Your task to perform on an android device: Empty the shopping cart on bestbuy. Search for alienware area 51 on bestbuy, select the first entry, and add it to the cart. Image 0: 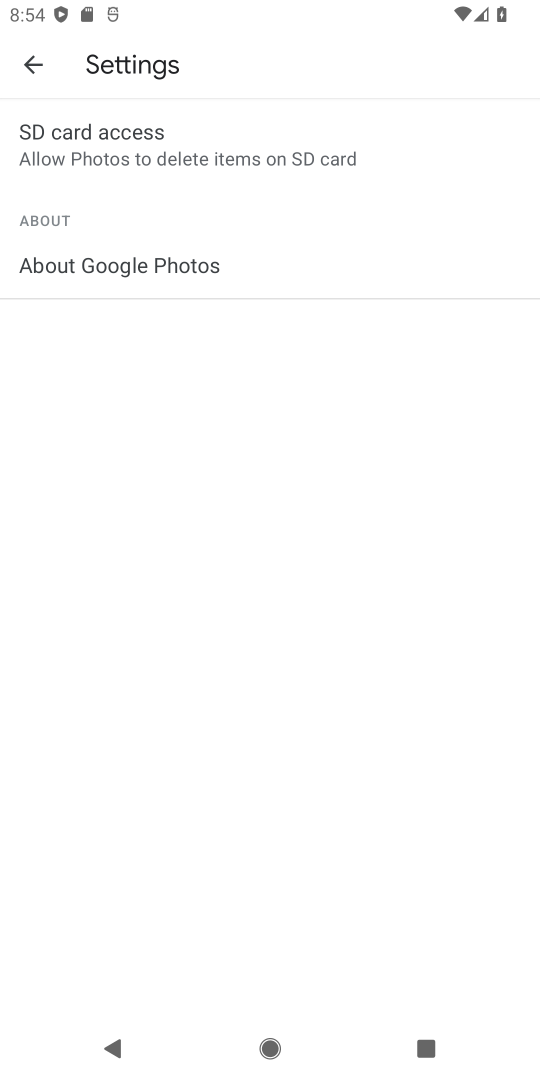
Step 0: press home button
Your task to perform on an android device: Empty the shopping cart on bestbuy. Search for alienware area 51 on bestbuy, select the first entry, and add it to the cart. Image 1: 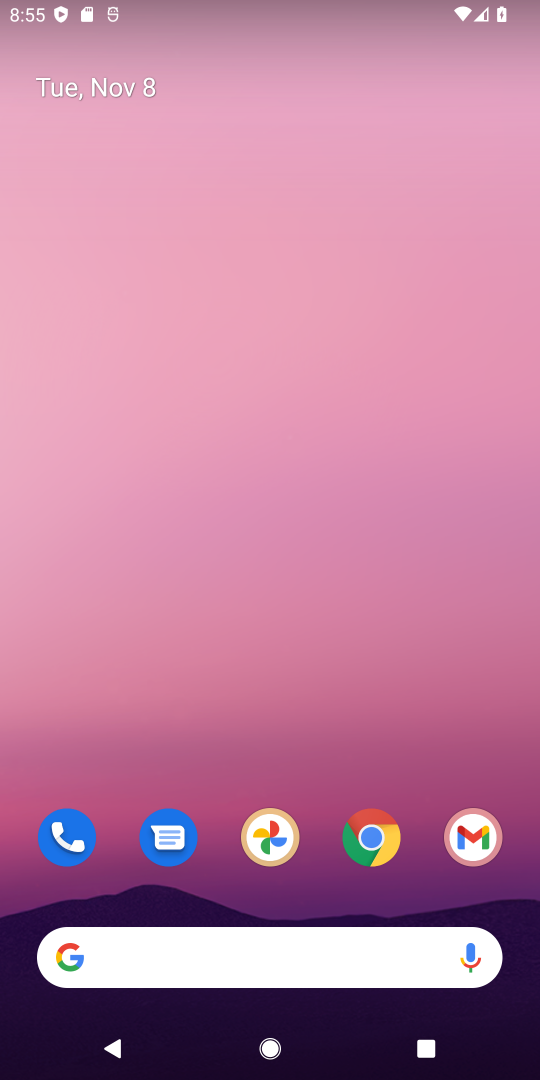
Step 1: click (383, 839)
Your task to perform on an android device: Empty the shopping cart on bestbuy. Search for alienware area 51 on bestbuy, select the first entry, and add it to the cart. Image 2: 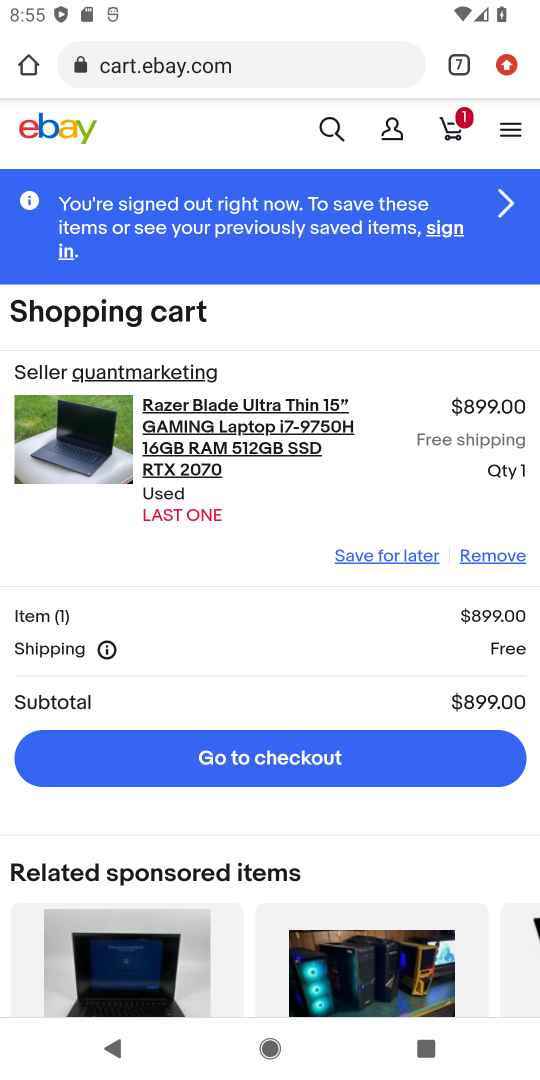
Step 2: click (460, 63)
Your task to perform on an android device: Empty the shopping cart on bestbuy. Search for alienware area 51 on bestbuy, select the first entry, and add it to the cart. Image 3: 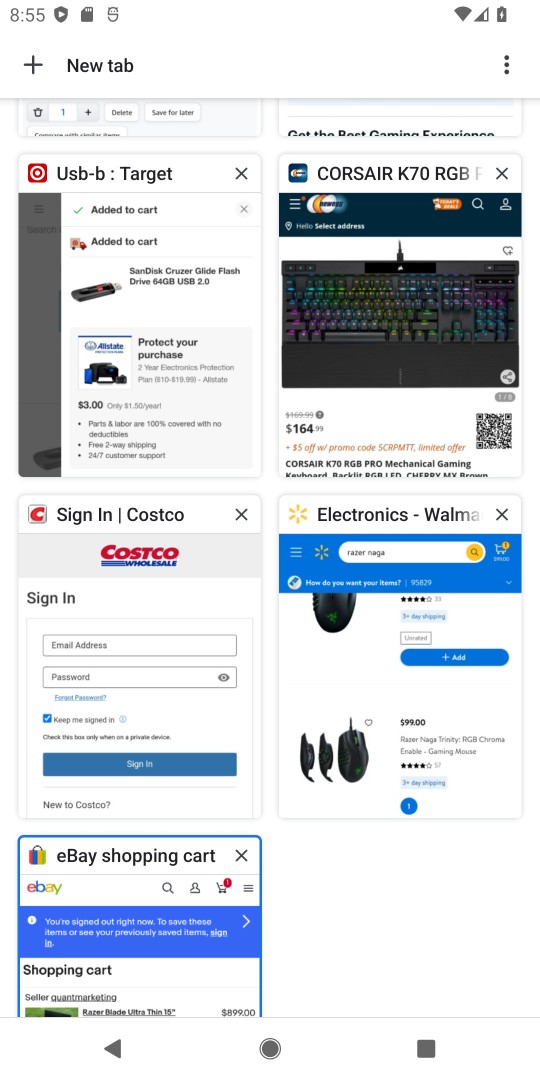
Step 3: drag from (479, 268) to (374, 1068)
Your task to perform on an android device: Empty the shopping cart on bestbuy. Search for alienware area 51 on bestbuy, select the first entry, and add it to the cart. Image 4: 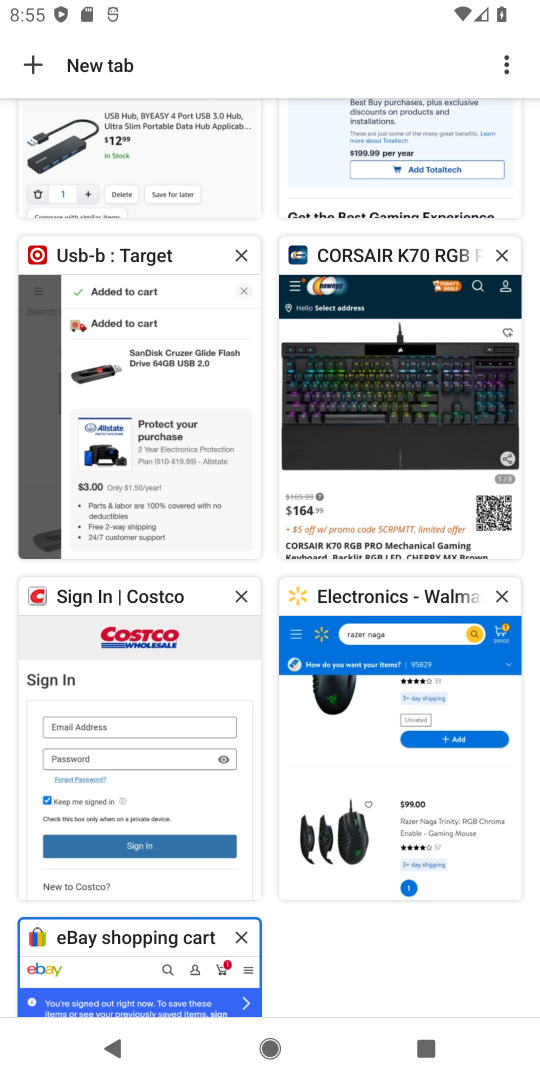
Step 4: drag from (442, 353) to (284, 1006)
Your task to perform on an android device: Empty the shopping cart on bestbuy. Search for alienware area 51 on bestbuy, select the first entry, and add it to the cart. Image 5: 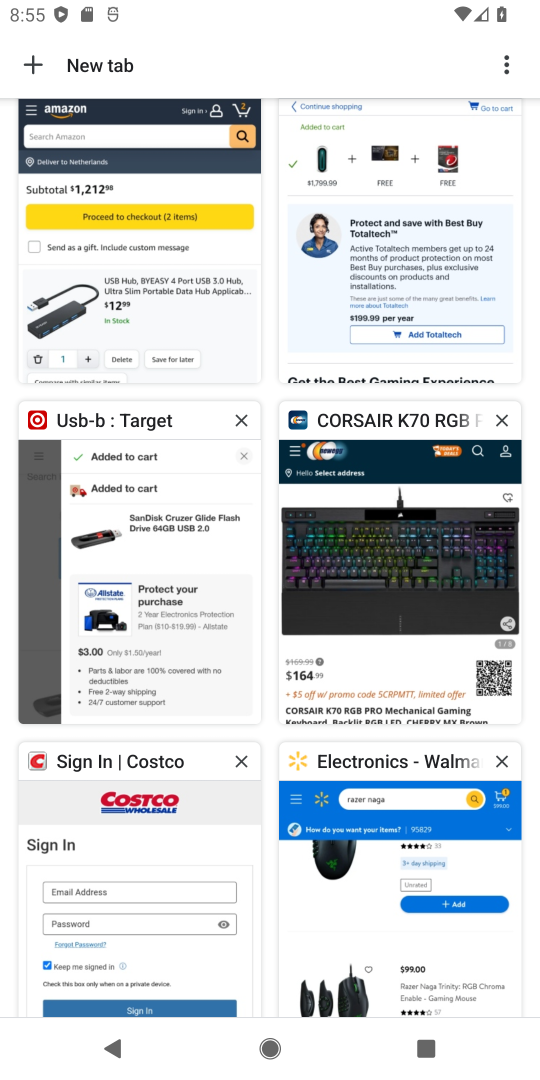
Step 5: click (414, 231)
Your task to perform on an android device: Empty the shopping cart on bestbuy. Search for alienware area 51 on bestbuy, select the first entry, and add it to the cart. Image 6: 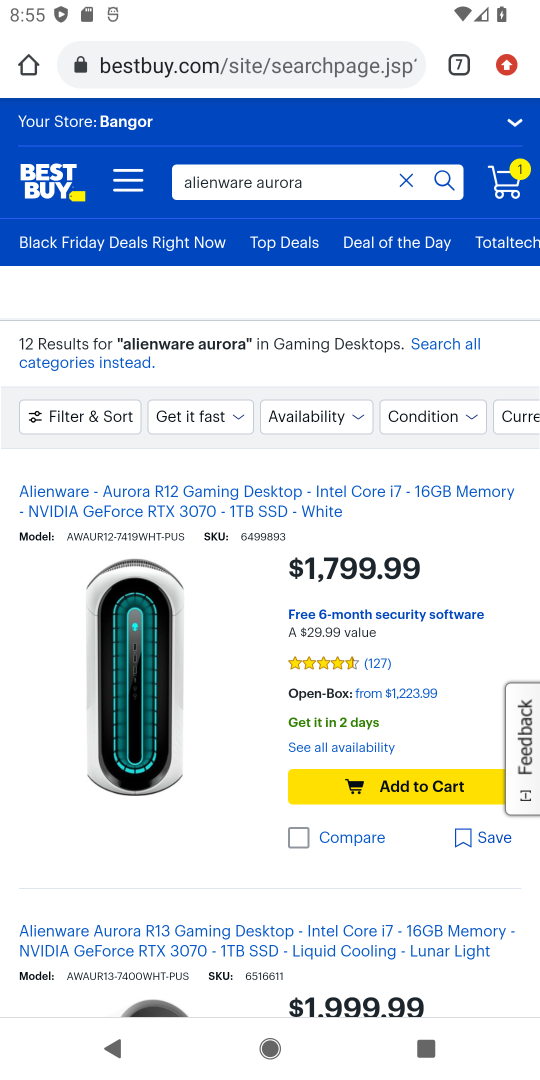
Step 6: click (401, 181)
Your task to perform on an android device: Empty the shopping cart on bestbuy. Search for alienware area 51 on bestbuy, select the first entry, and add it to the cart. Image 7: 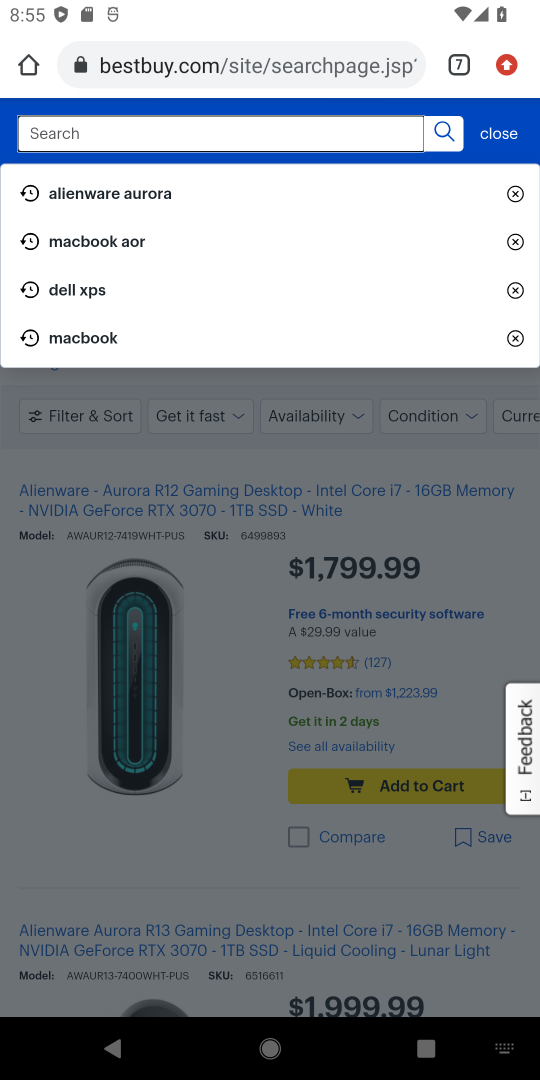
Step 7: type "alienware area 51 "
Your task to perform on an android device: Empty the shopping cart on bestbuy. Search for alienware area 51 on bestbuy, select the first entry, and add it to the cart. Image 8: 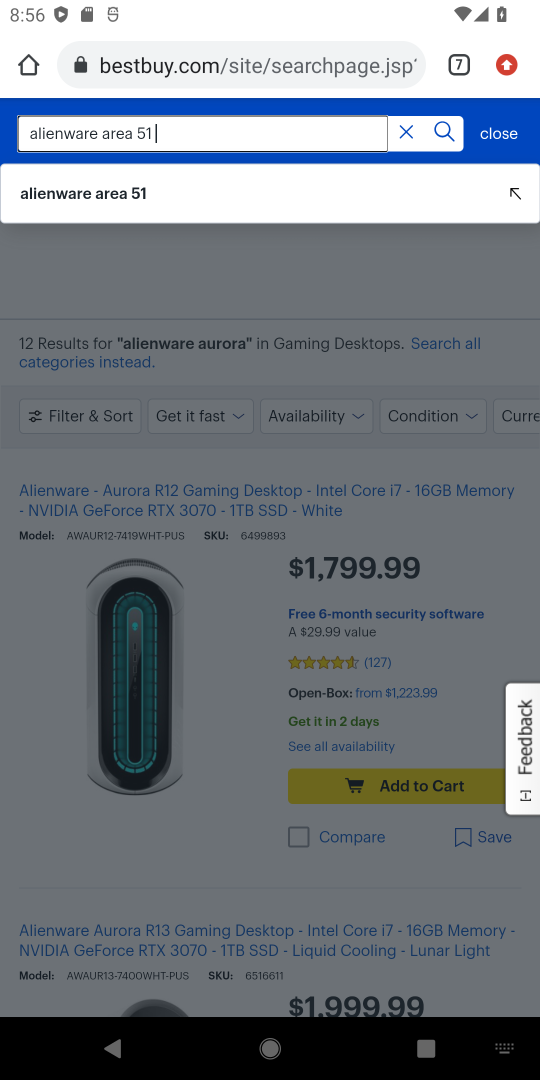
Step 8: click (104, 203)
Your task to perform on an android device: Empty the shopping cart on bestbuy. Search for alienware area 51 on bestbuy, select the first entry, and add it to the cart. Image 9: 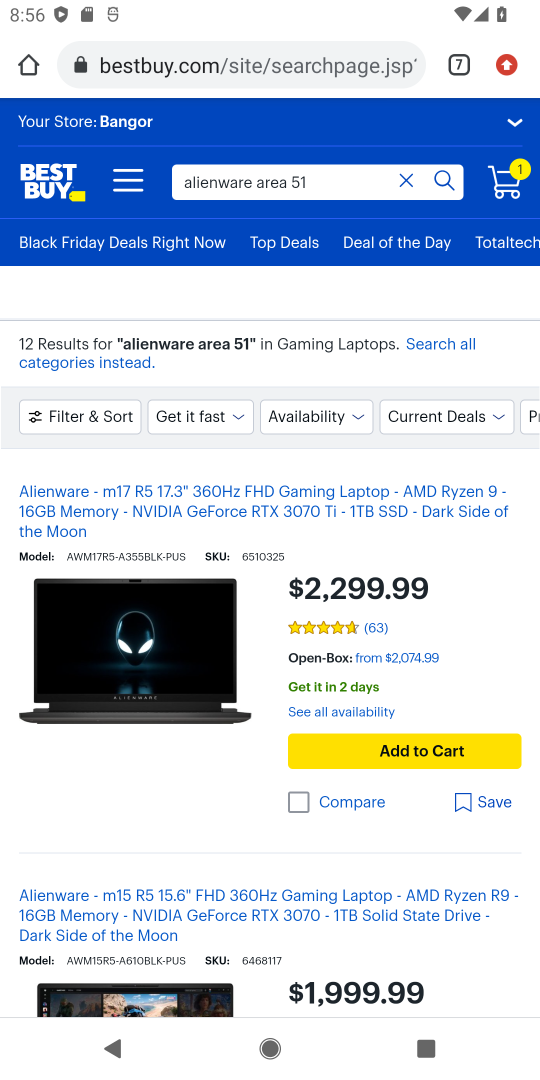
Step 9: click (411, 664)
Your task to perform on an android device: Empty the shopping cart on bestbuy. Search for alienware area 51 on bestbuy, select the first entry, and add it to the cart. Image 10: 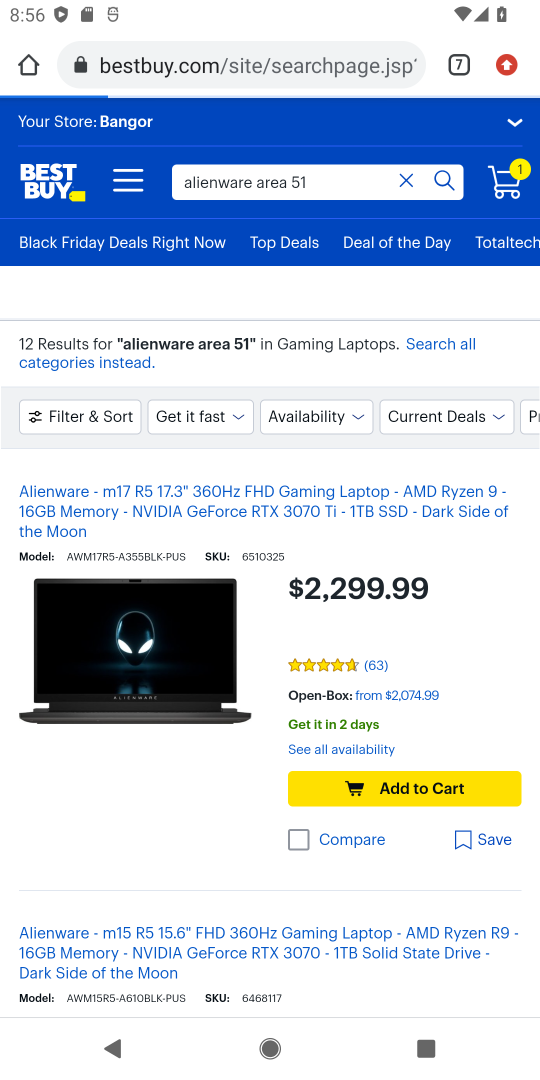
Step 10: click (430, 755)
Your task to perform on an android device: Empty the shopping cart on bestbuy. Search for alienware area 51 on bestbuy, select the first entry, and add it to the cart. Image 11: 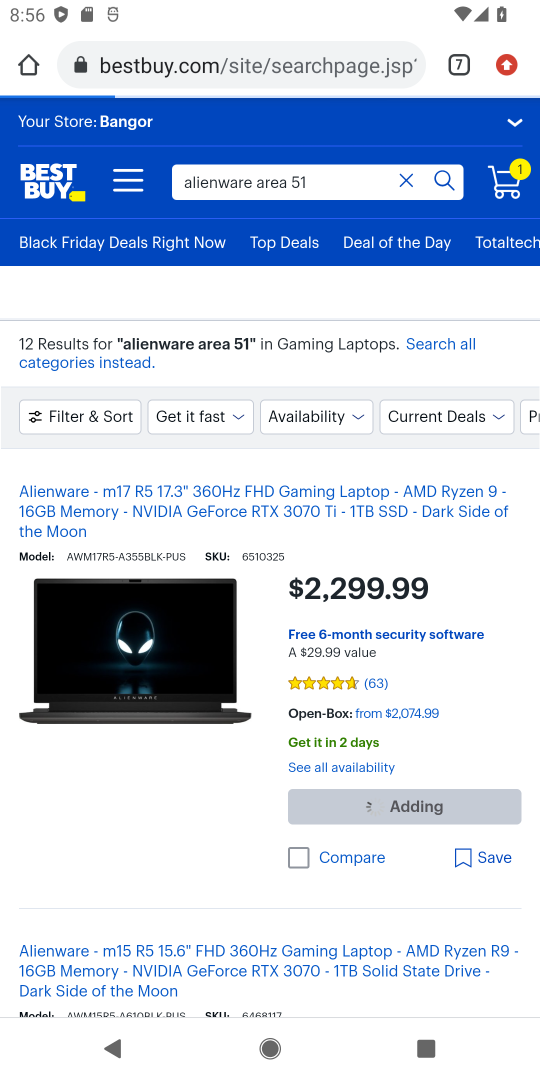
Step 11: click (426, 749)
Your task to perform on an android device: Empty the shopping cart on bestbuy. Search for alienware area 51 on bestbuy, select the first entry, and add it to the cart. Image 12: 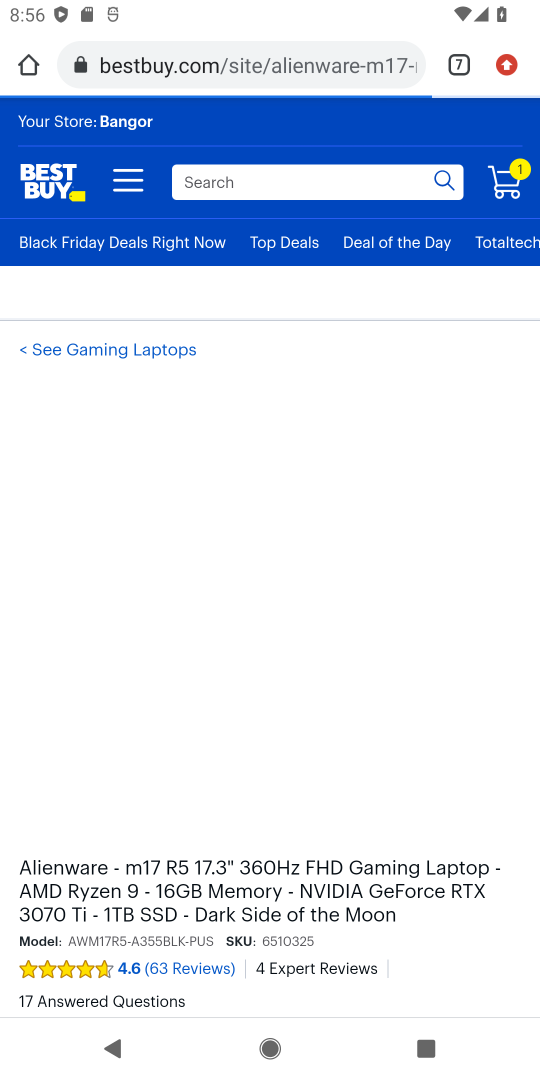
Step 12: click (510, 168)
Your task to perform on an android device: Empty the shopping cart on bestbuy. Search for alienware area 51 on bestbuy, select the first entry, and add it to the cart. Image 13: 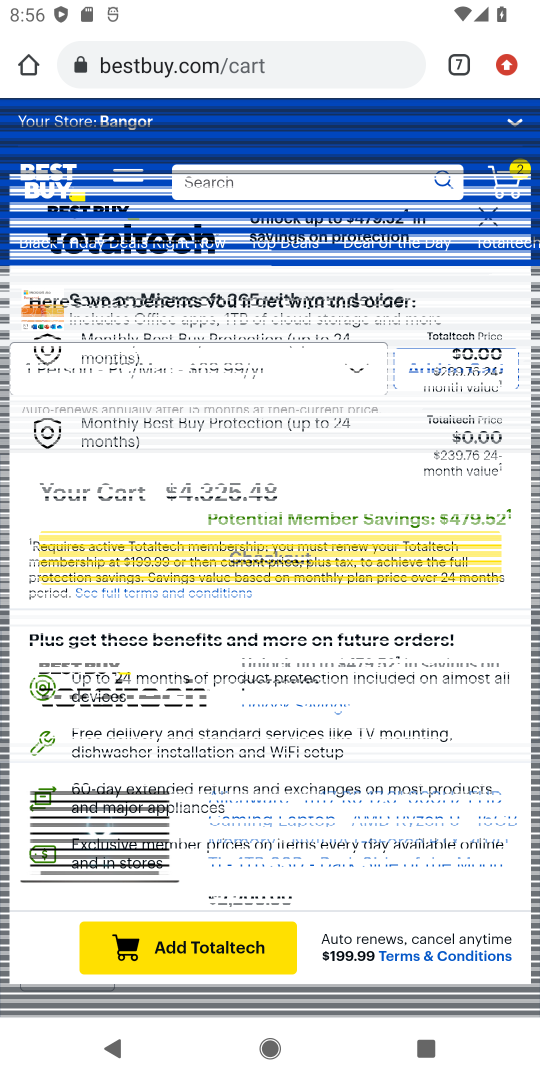
Step 13: click (491, 219)
Your task to perform on an android device: Empty the shopping cart on bestbuy. Search for alienware area 51 on bestbuy, select the first entry, and add it to the cart. Image 14: 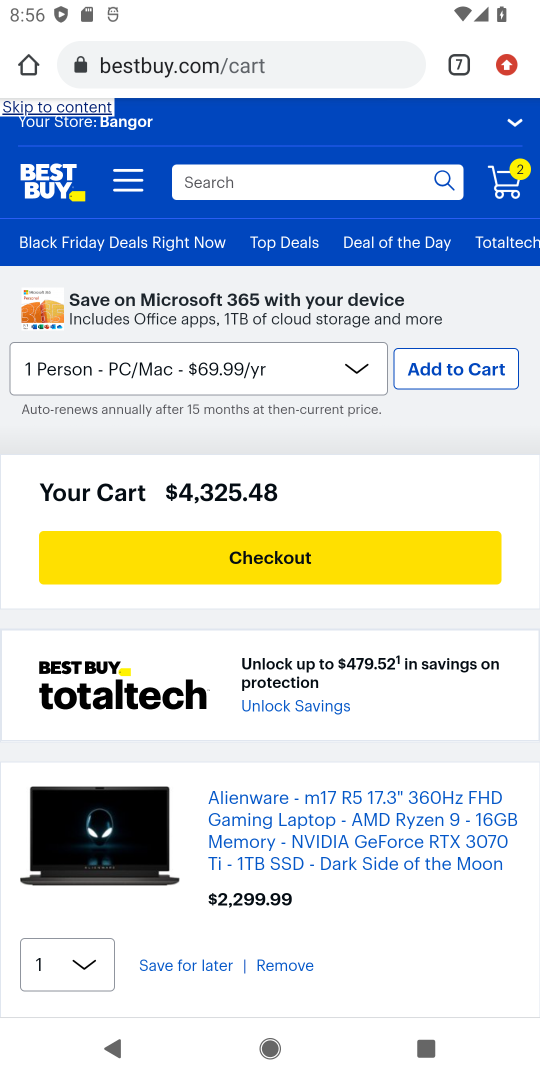
Step 14: drag from (333, 760) to (425, 323)
Your task to perform on an android device: Empty the shopping cart on bestbuy. Search for alienware area 51 on bestbuy, select the first entry, and add it to the cart. Image 15: 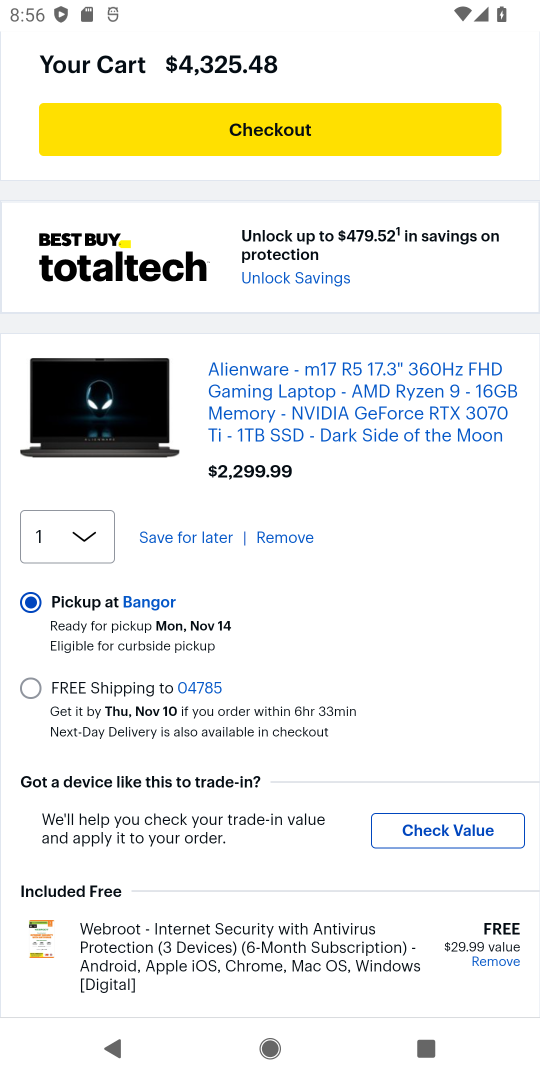
Step 15: drag from (374, 706) to (479, 172)
Your task to perform on an android device: Empty the shopping cart on bestbuy. Search for alienware area 51 on bestbuy, select the first entry, and add it to the cart. Image 16: 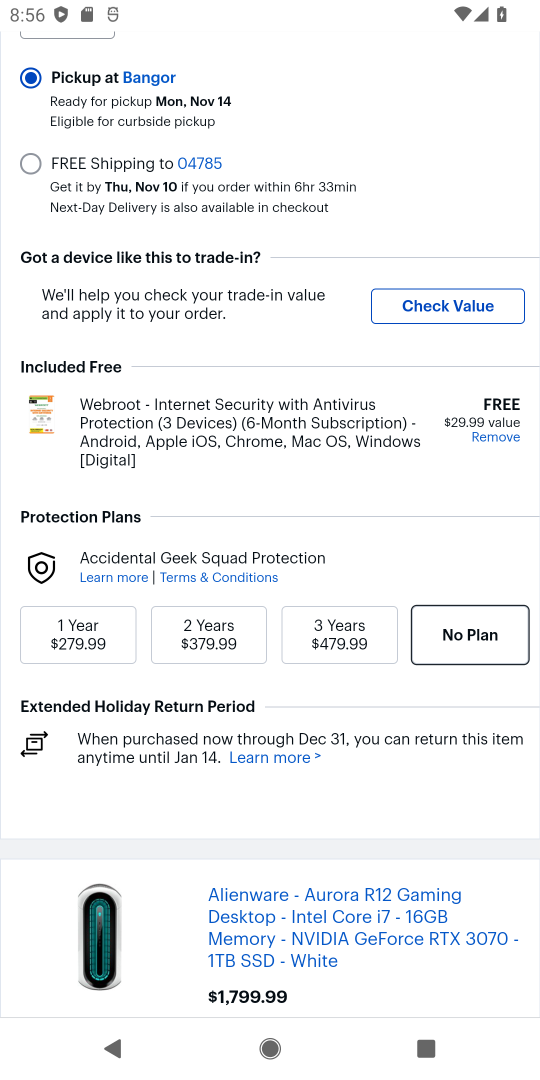
Step 16: drag from (334, 796) to (379, 571)
Your task to perform on an android device: Empty the shopping cart on bestbuy. Search for alienware area 51 on bestbuy, select the first entry, and add it to the cart. Image 17: 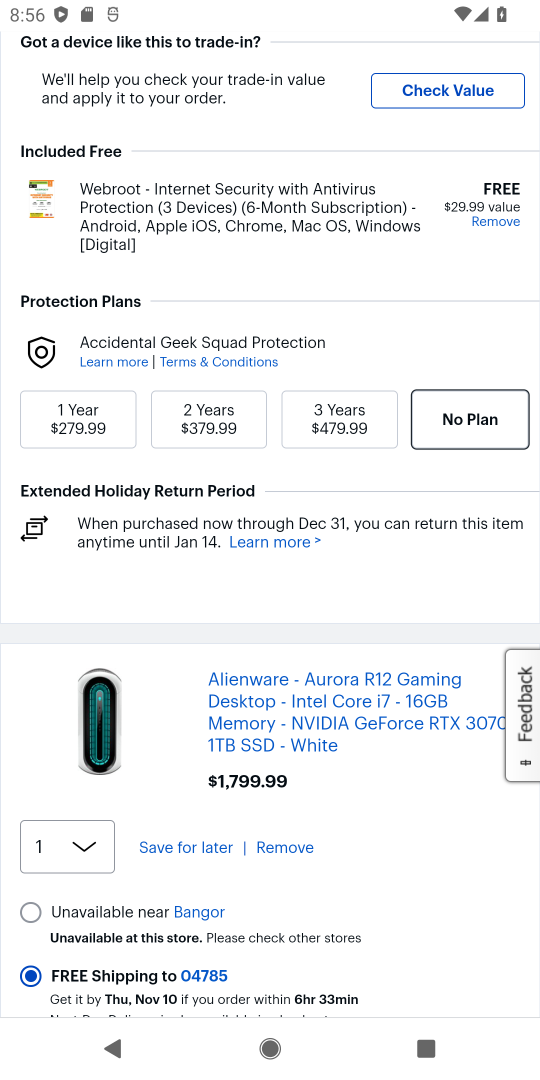
Step 17: click (262, 850)
Your task to perform on an android device: Empty the shopping cart on bestbuy. Search for alienware area 51 on bestbuy, select the first entry, and add it to the cart. Image 18: 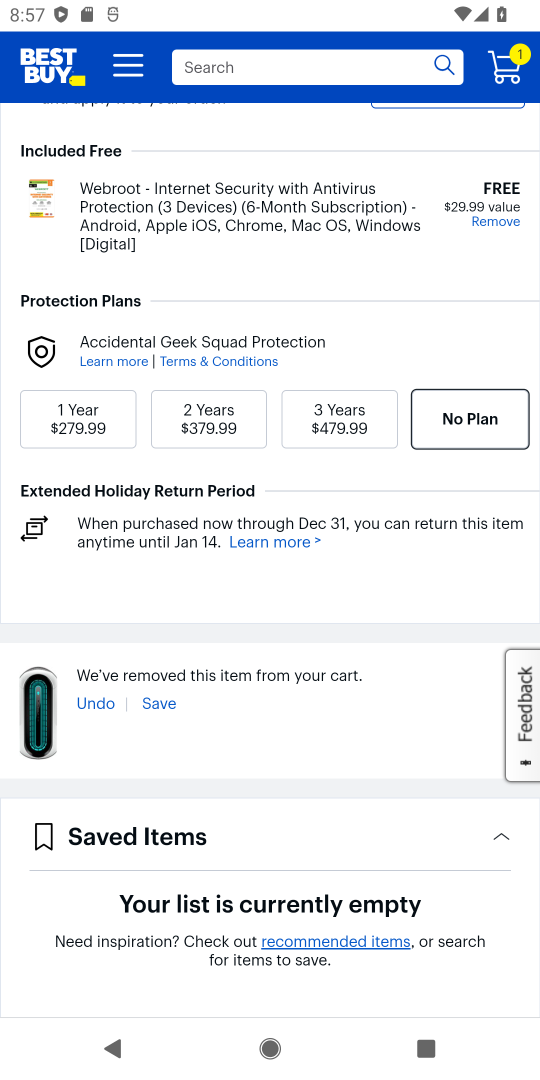
Step 18: task complete